Your task to perform on an android device: open chrome privacy settings Image 0: 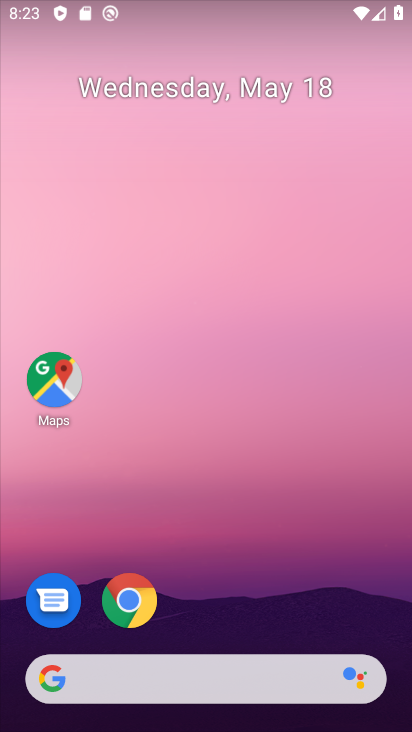
Step 0: click (131, 585)
Your task to perform on an android device: open chrome privacy settings Image 1: 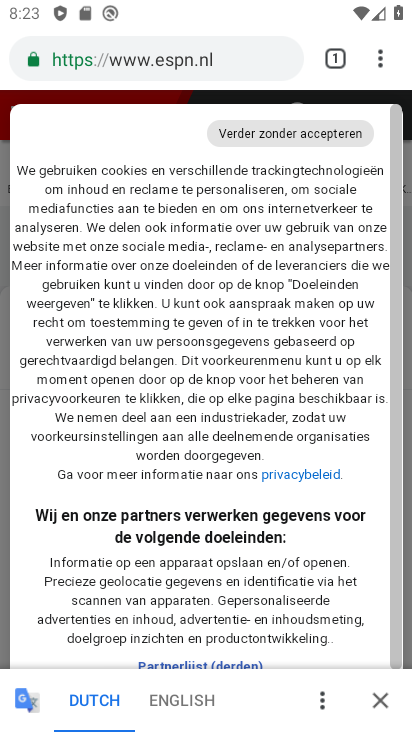
Step 1: click (376, 58)
Your task to perform on an android device: open chrome privacy settings Image 2: 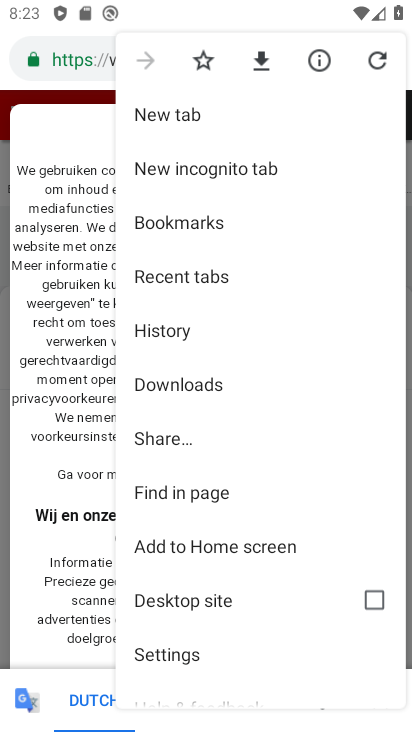
Step 2: click (182, 660)
Your task to perform on an android device: open chrome privacy settings Image 3: 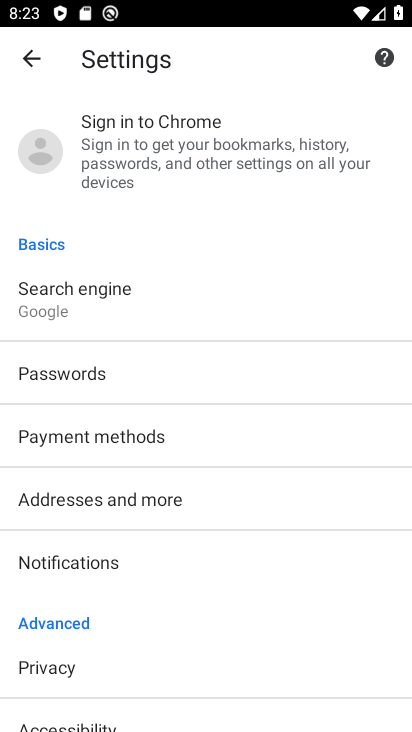
Step 3: click (95, 655)
Your task to perform on an android device: open chrome privacy settings Image 4: 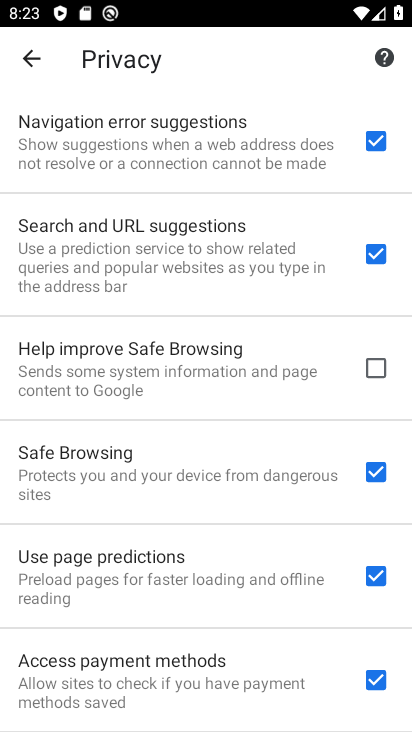
Step 4: task complete